Your task to perform on an android device: turn on data saver in the chrome app Image 0: 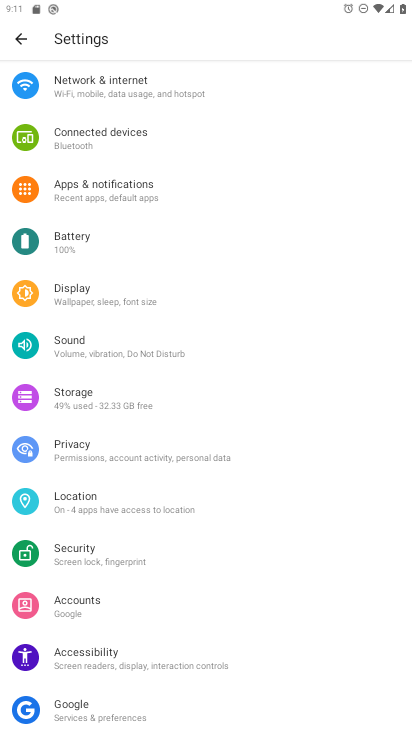
Step 0: press home button
Your task to perform on an android device: turn on data saver in the chrome app Image 1: 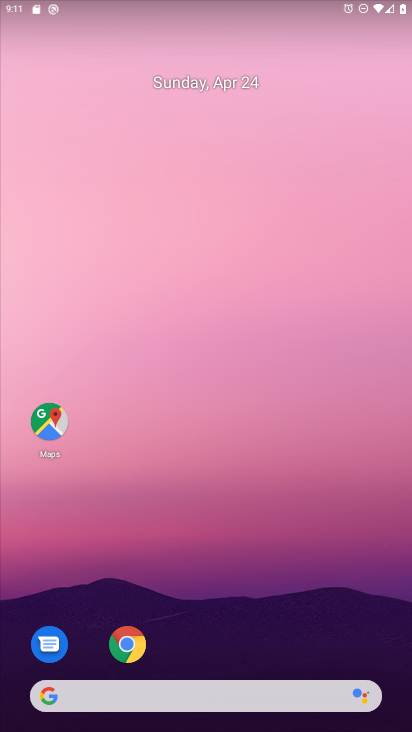
Step 1: drag from (193, 677) to (213, 54)
Your task to perform on an android device: turn on data saver in the chrome app Image 2: 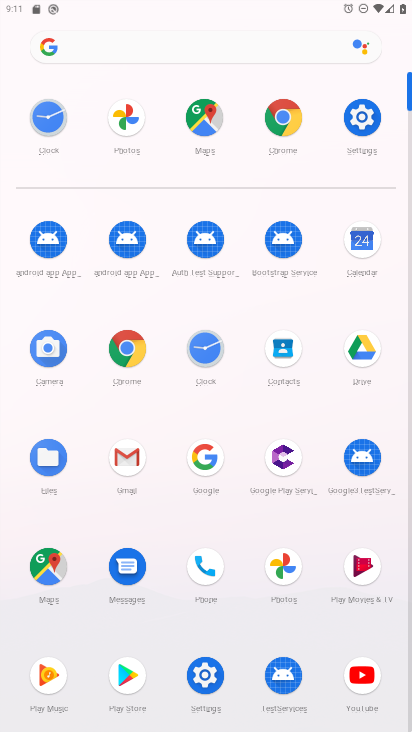
Step 2: click (284, 136)
Your task to perform on an android device: turn on data saver in the chrome app Image 3: 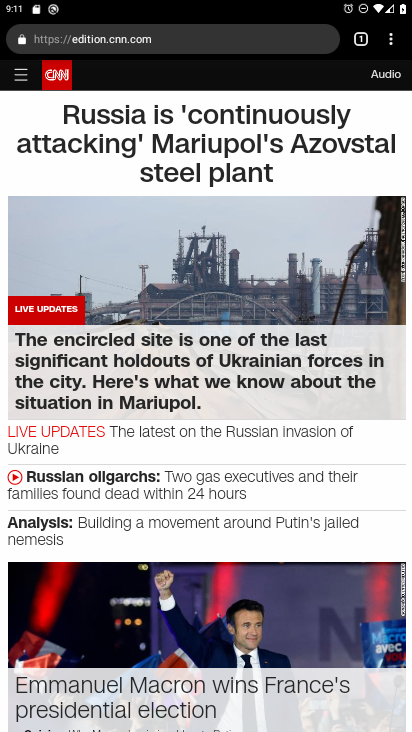
Step 3: drag from (389, 40) to (256, 436)
Your task to perform on an android device: turn on data saver in the chrome app Image 4: 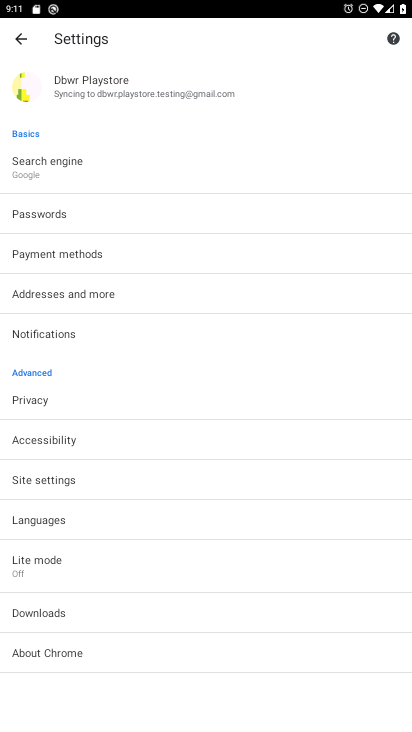
Step 4: click (45, 562)
Your task to perform on an android device: turn on data saver in the chrome app Image 5: 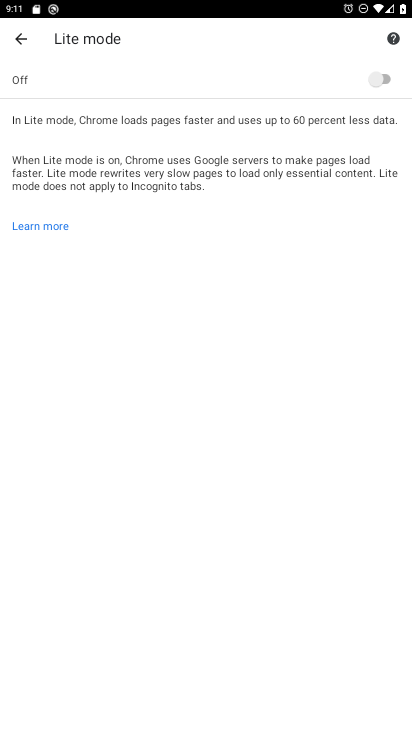
Step 5: click (375, 81)
Your task to perform on an android device: turn on data saver in the chrome app Image 6: 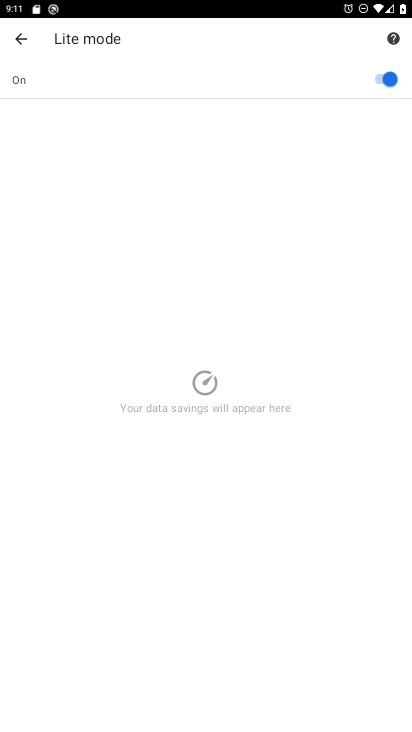
Step 6: task complete